Your task to perform on an android device: all mails in gmail Image 0: 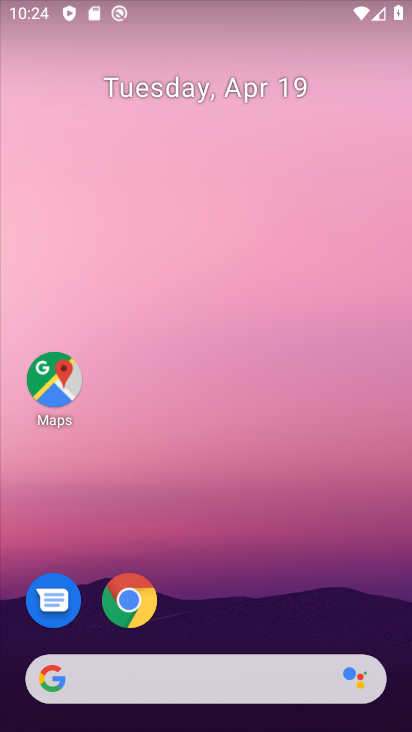
Step 0: drag from (229, 469) to (262, 0)
Your task to perform on an android device: all mails in gmail Image 1: 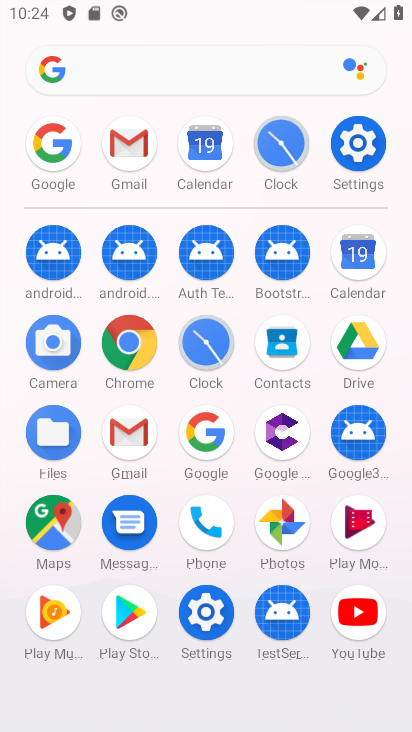
Step 1: click (139, 436)
Your task to perform on an android device: all mails in gmail Image 2: 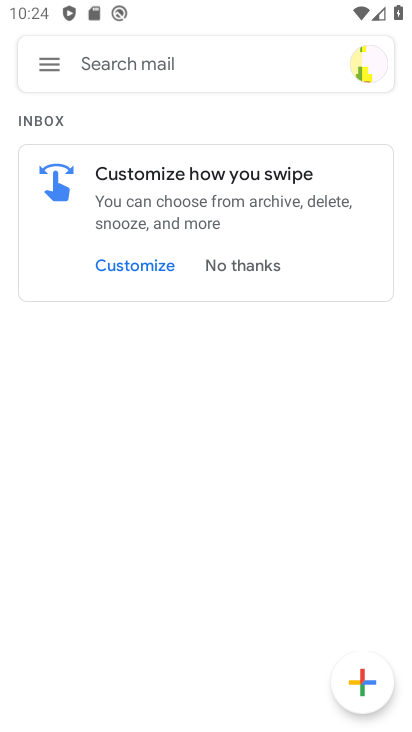
Step 2: click (44, 67)
Your task to perform on an android device: all mails in gmail Image 3: 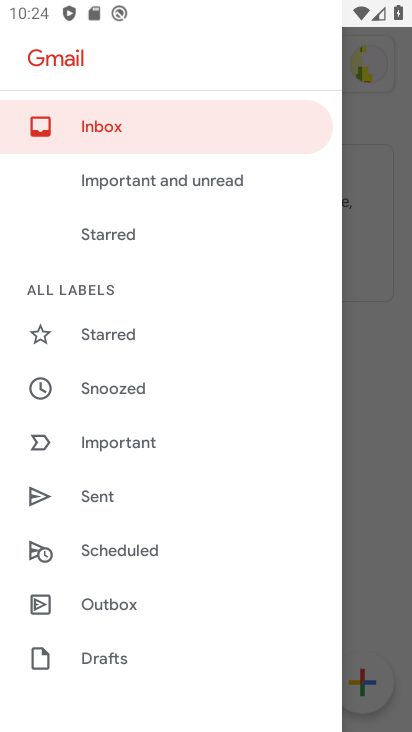
Step 3: drag from (128, 569) to (171, 296)
Your task to perform on an android device: all mails in gmail Image 4: 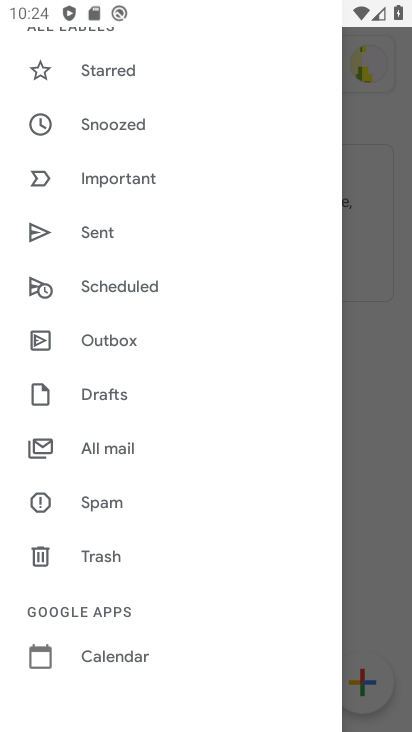
Step 4: click (123, 446)
Your task to perform on an android device: all mails in gmail Image 5: 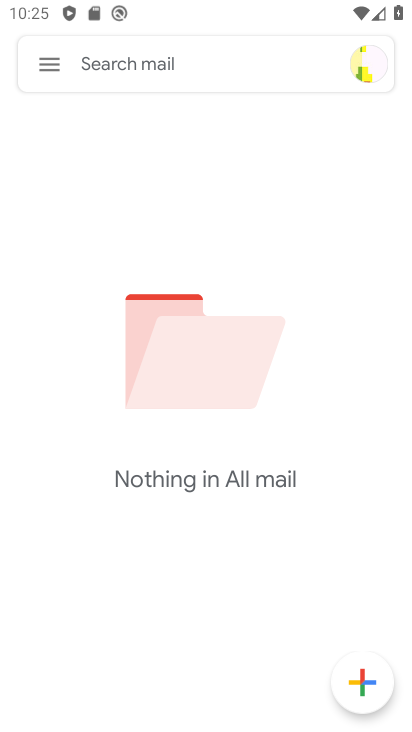
Step 5: task complete